Your task to perform on an android device: Open Google Maps and go to "Timeline" Image 0: 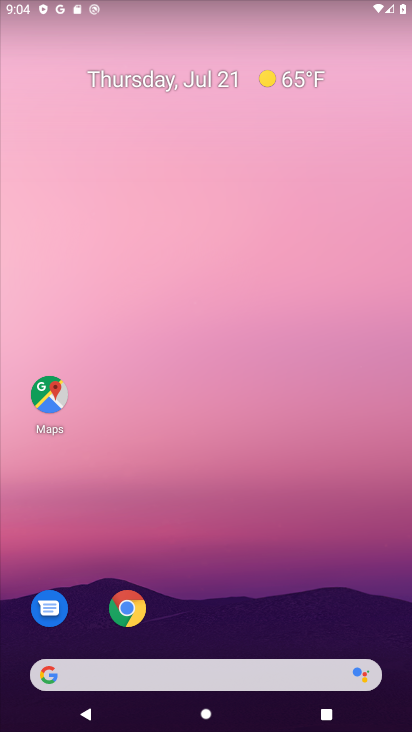
Step 0: click (50, 401)
Your task to perform on an android device: Open Google Maps and go to "Timeline" Image 1: 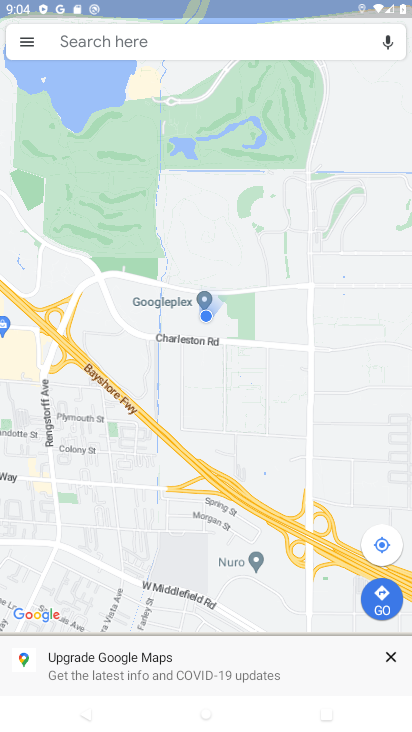
Step 1: click (28, 42)
Your task to perform on an android device: Open Google Maps and go to "Timeline" Image 2: 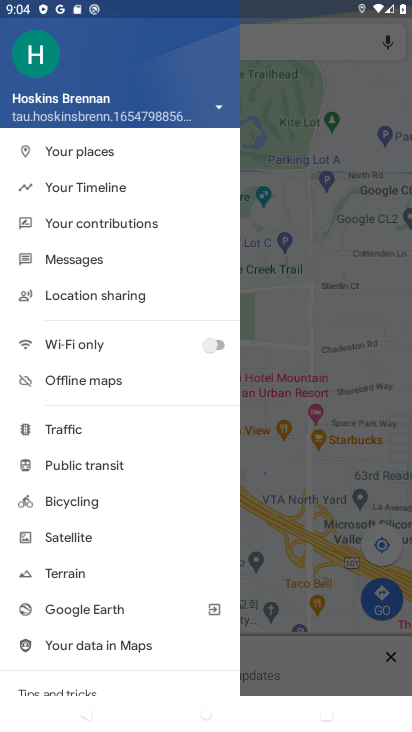
Step 2: click (75, 188)
Your task to perform on an android device: Open Google Maps and go to "Timeline" Image 3: 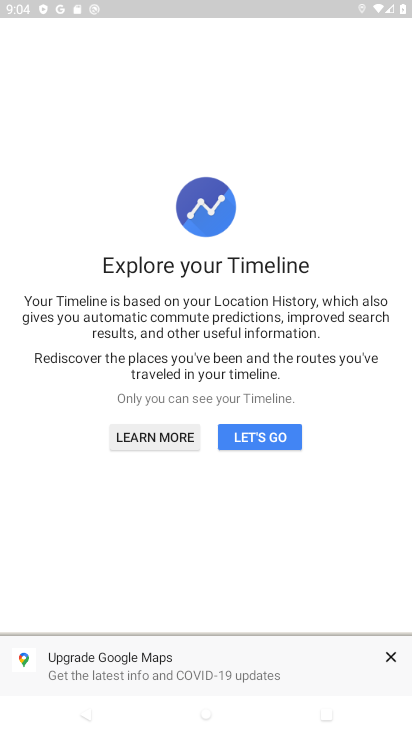
Step 3: click (252, 438)
Your task to perform on an android device: Open Google Maps and go to "Timeline" Image 4: 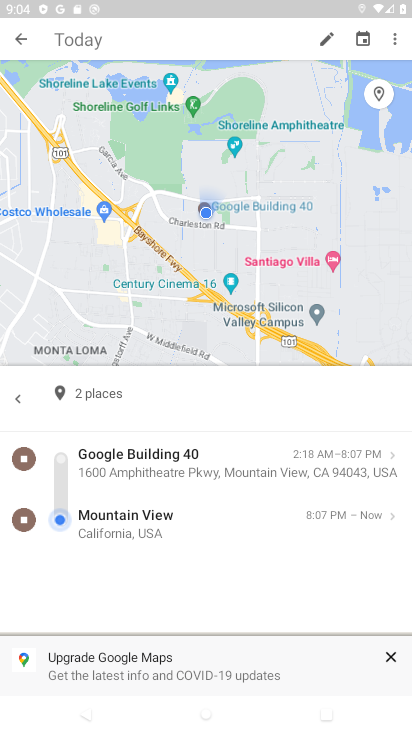
Step 4: task complete